Your task to perform on an android device: set the stopwatch Image 0: 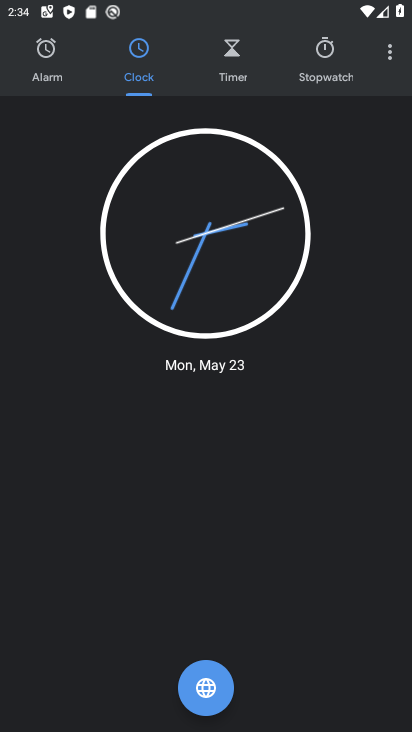
Step 0: click (318, 73)
Your task to perform on an android device: set the stopwatch Image 1: 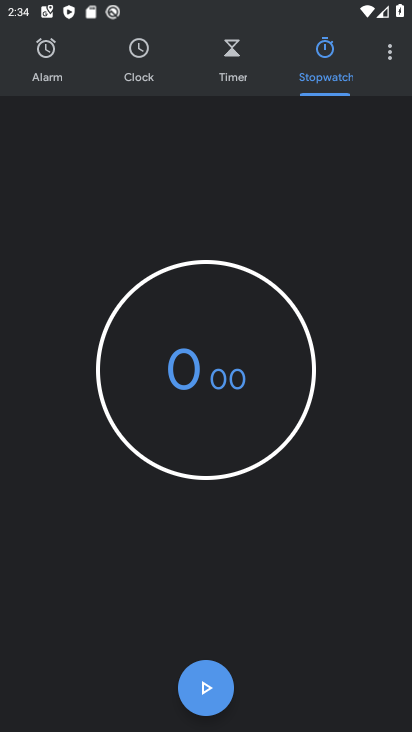
Step 1: click (205, 694)
Your task to perform on an android device: set the stopwatch Image 2: 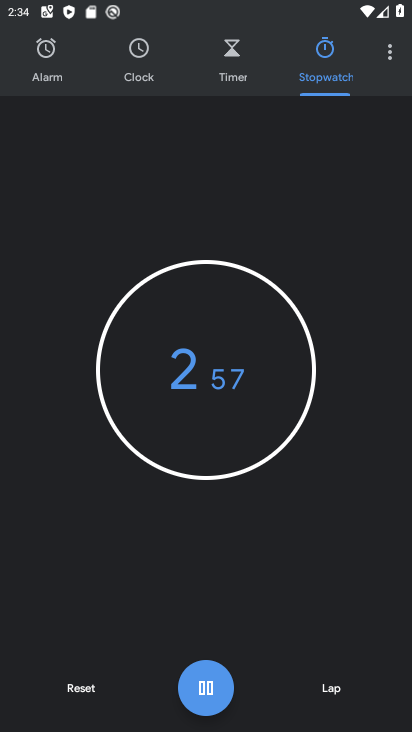
Step 2: click (205, 694)
Your task to perform on an android device: set the stopwatch Image 3: 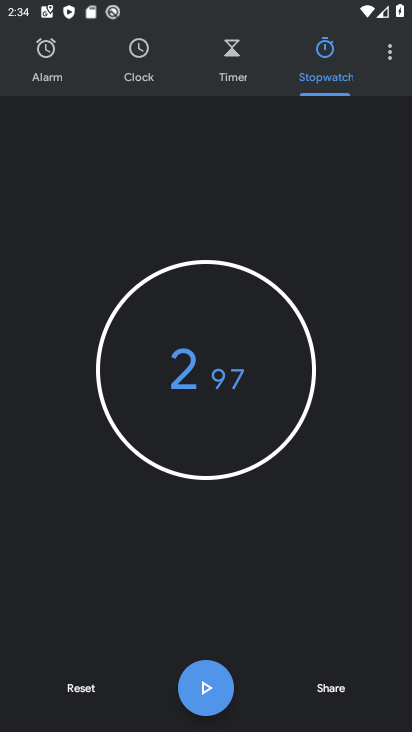
Step 3: task complete